Your task to perform on an android device: install app "Pandora - Music & Podcasts" Image 0: 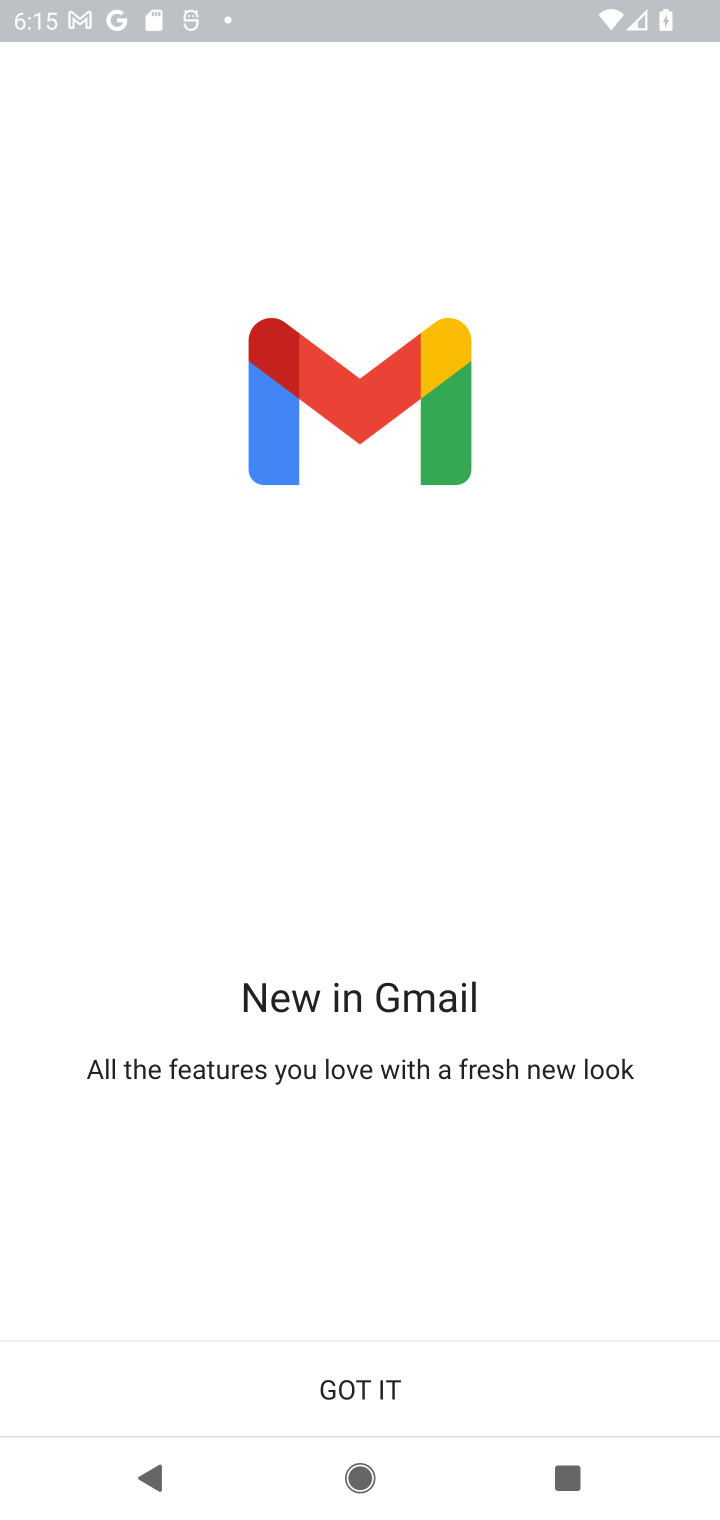
Step 0: press home button
Your task to perform on an android device: install app "Pandora - Music & Podcasts" Image 1: 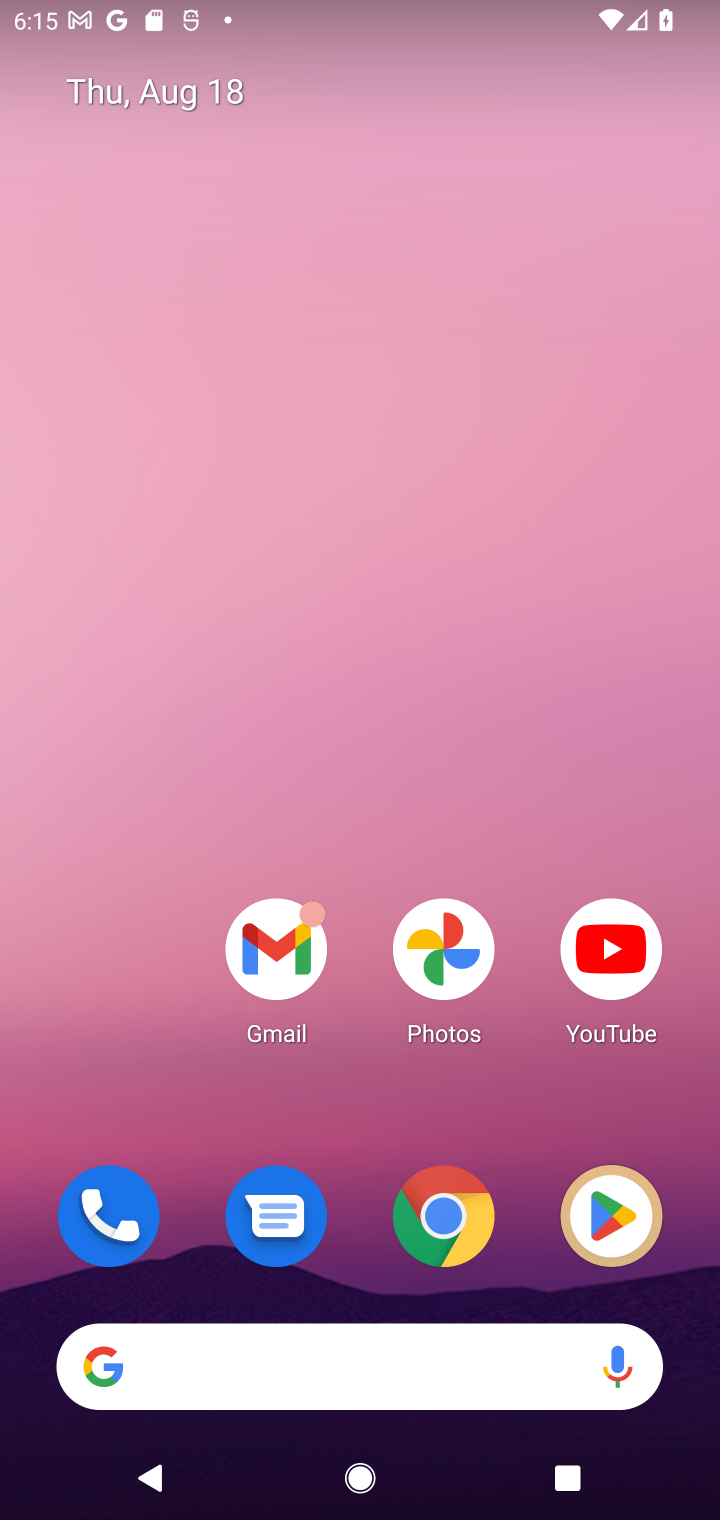
Step 1: click (608, 1215)
Your task to perform on an android device: install app "Pandora - Music & Podcasts" Image 2: 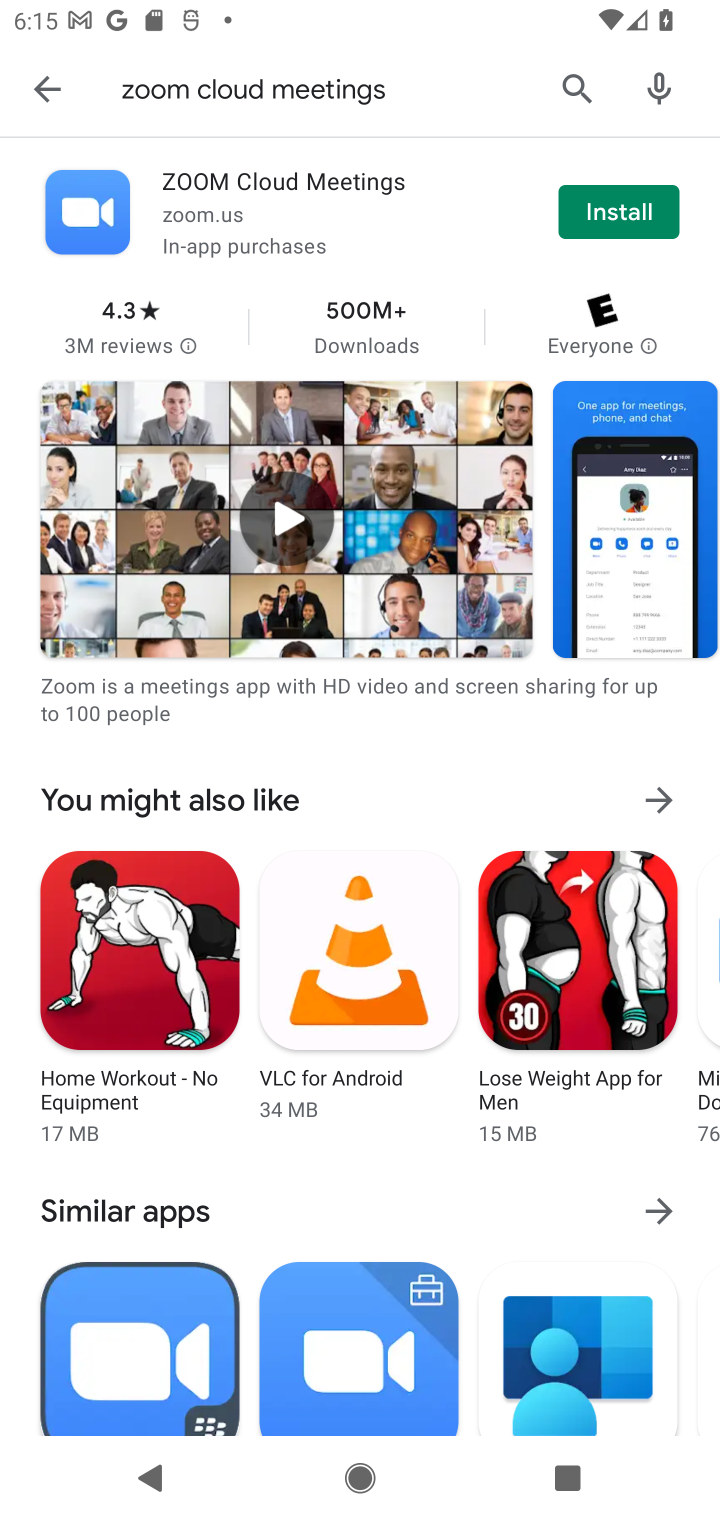
Step 2: click (574, 90)
Your task to perform on an android device: install app "Pandora - Music & Podcasts" Image 3: 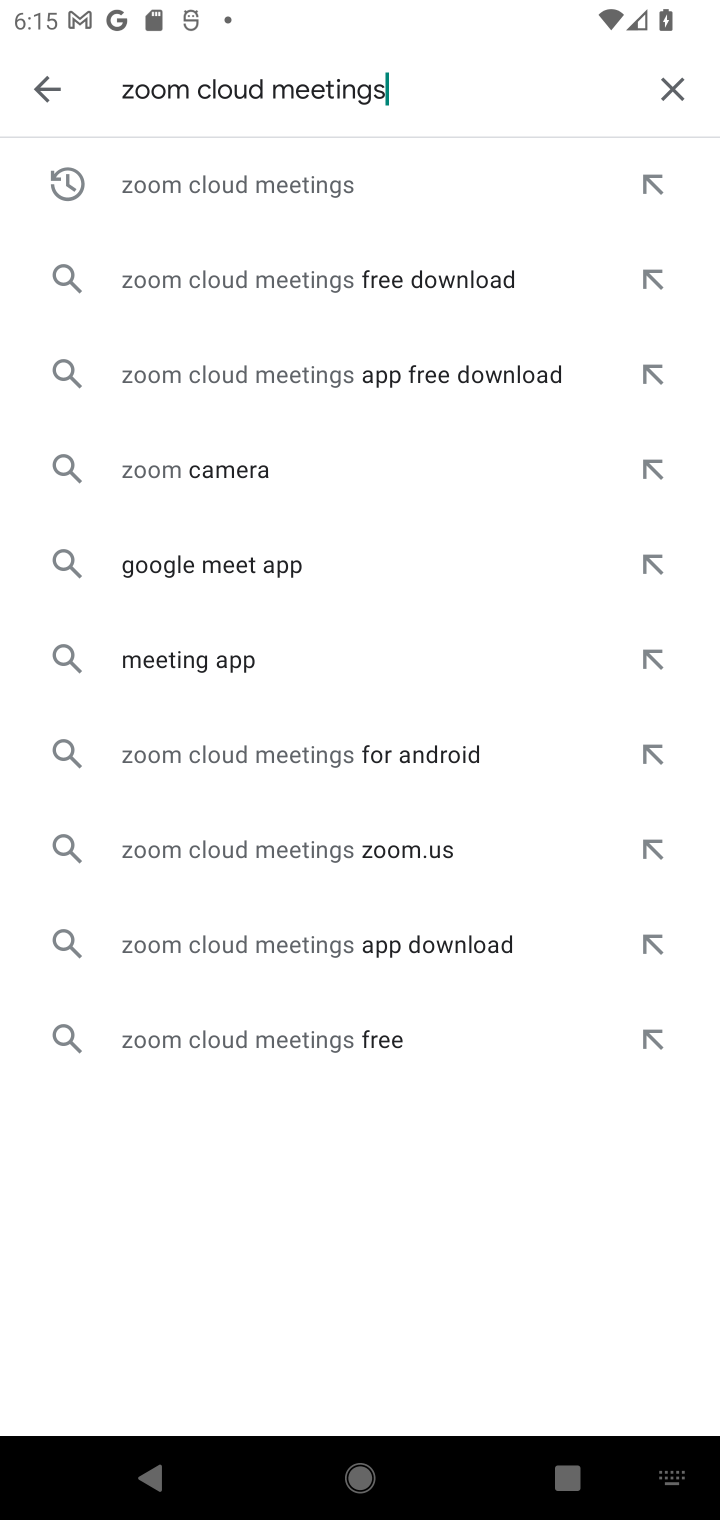
Step 3: click (670, 88)
Your task to perform on an android device: install app "Pandora - Music & Podcasts" Image 4: 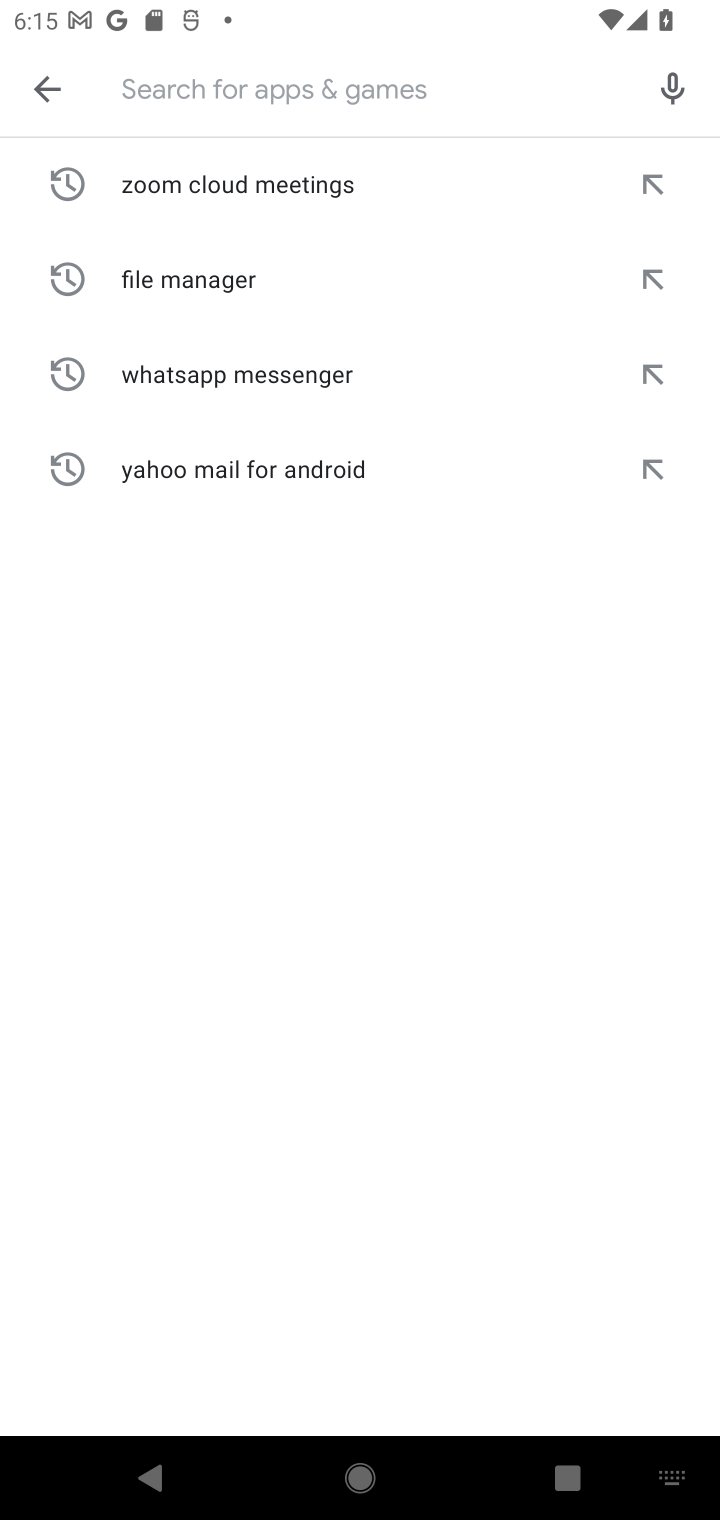
Step 4: type "pandora"
Your task to perform on an android device: install app "Pandora - Music & Podcasts" Image 5: 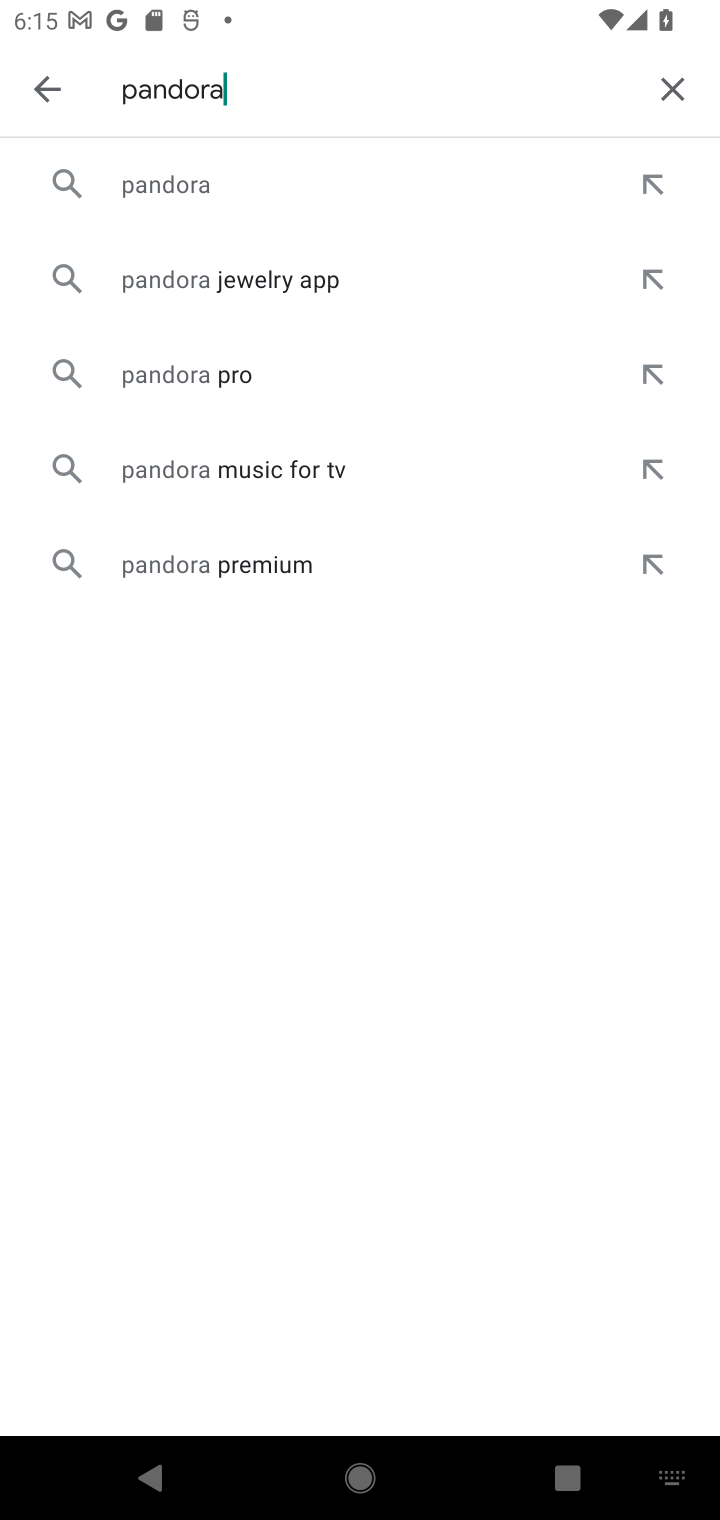
Step 5: click (188, 195)
Your task to perform on an android device: install app "Pandora - Music & Podcasts" Image 6: 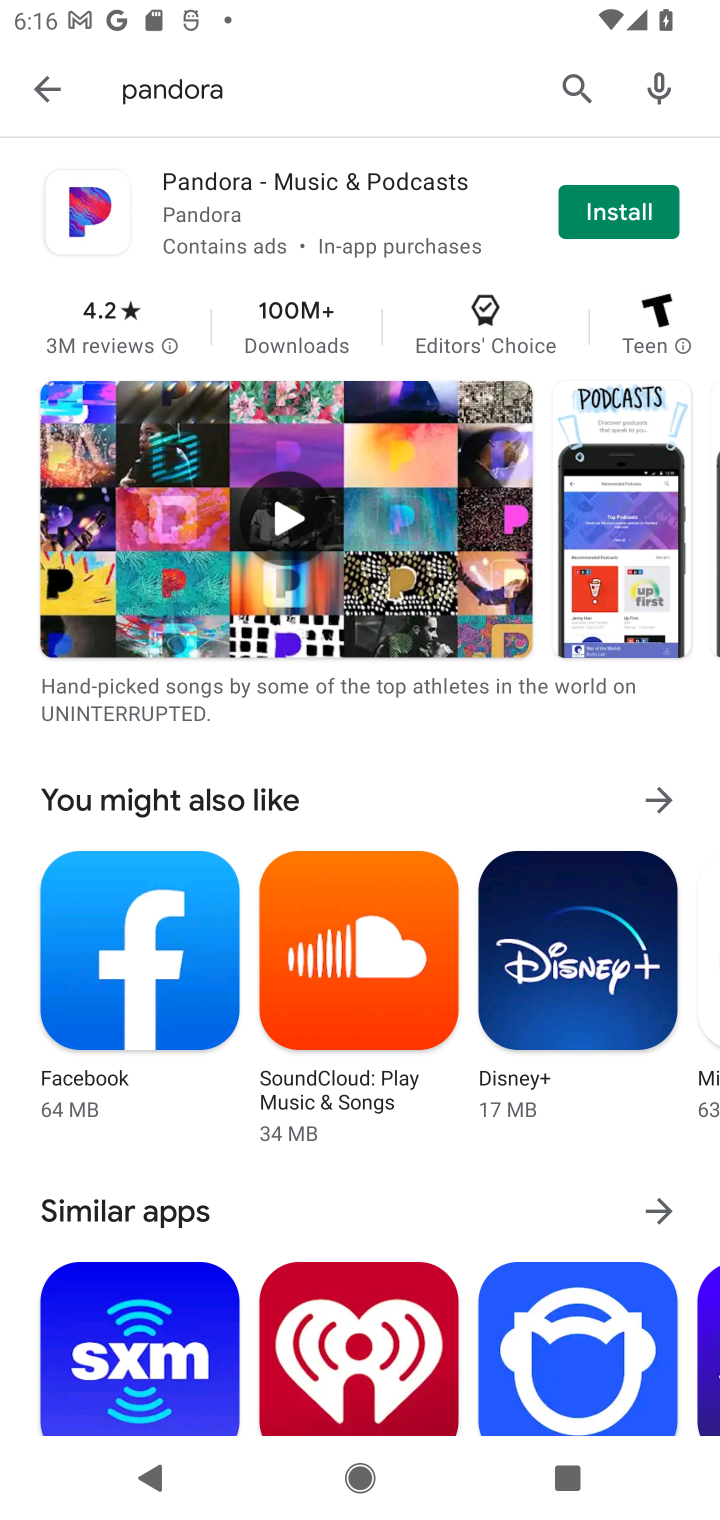
Step 6: click (609, 219)
Your task to perform on an android device: install app "Pandora - Music & Podcasts" Image 7: 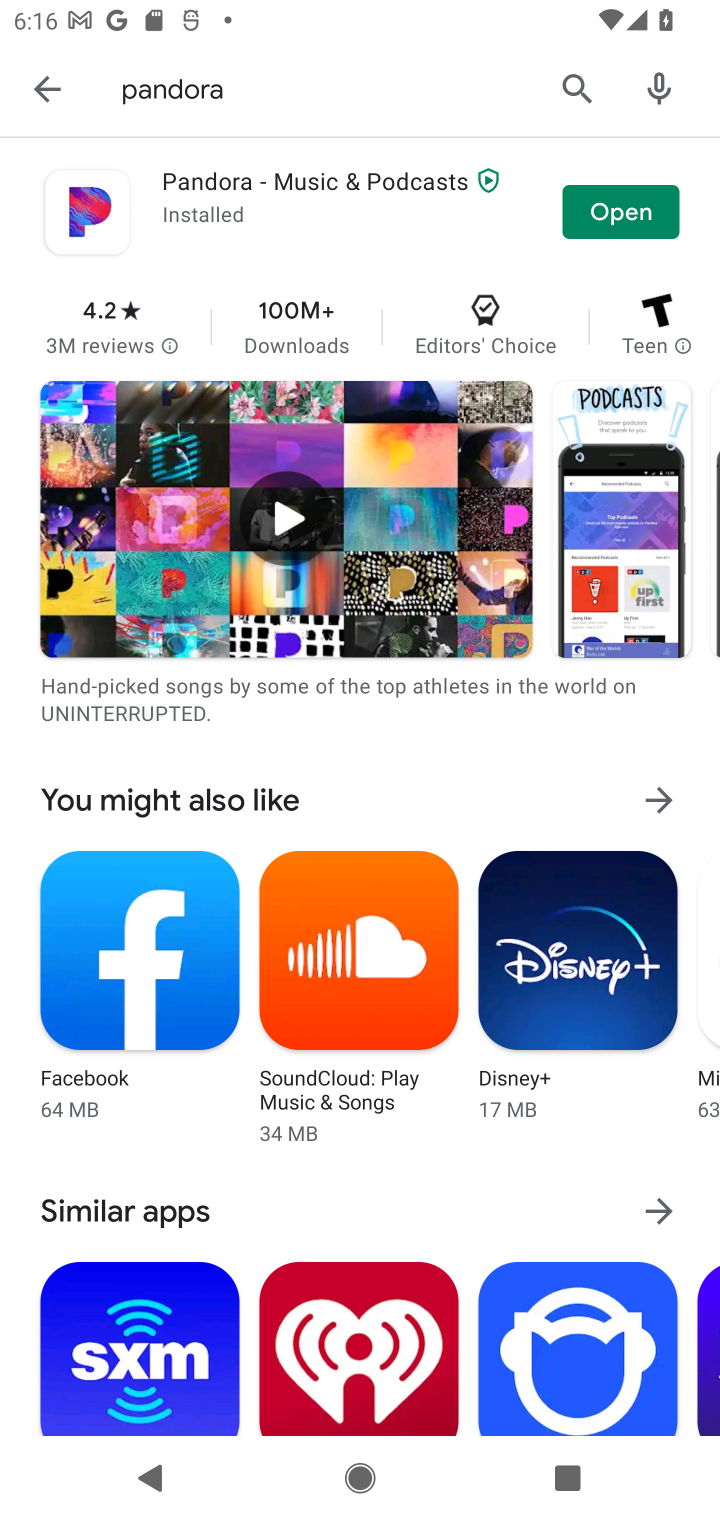
Step 7: task complete